Your task to perform on an android device: turn off improve location accuracy Image 0: 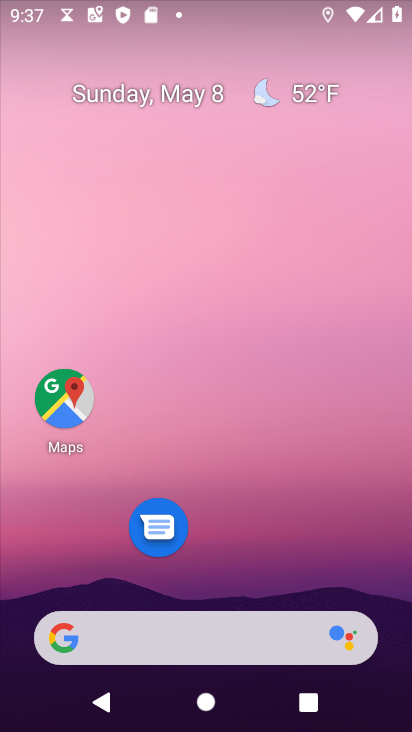
Step 0: drag from (269, 567) to (220, 115)
Your task to perform on an android device: turn off improve location accuracy Image 1: 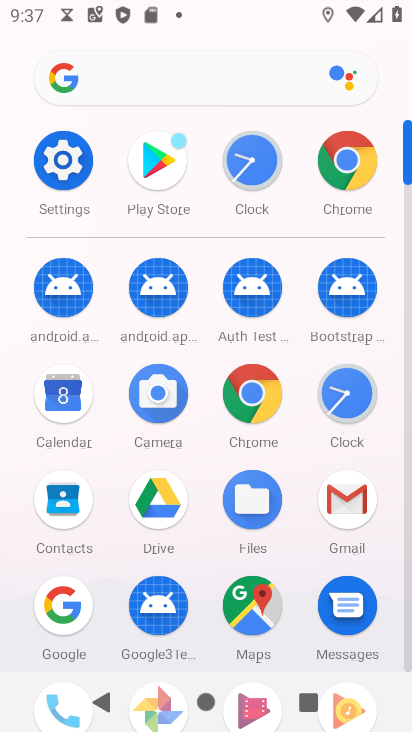
Step 1: drag from (208, 433) to (212, 284)
Your task to perform on an android device: turn off improve location accuracy Image 2: 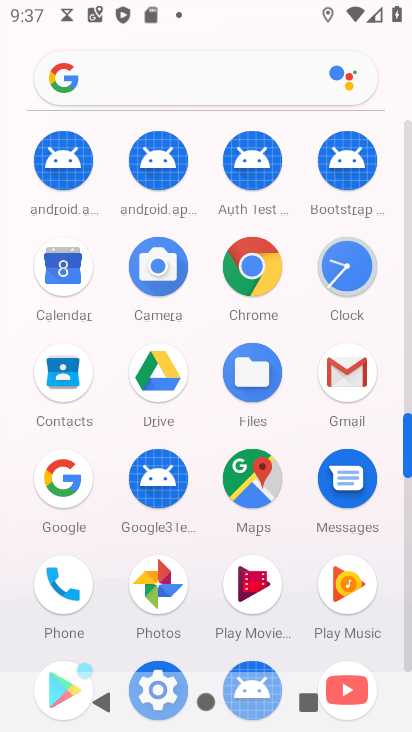
Step 2: drag from (203, 402) to (219, 244)
Your task to perform on an android device: turn off improve location accuracy Image 3: 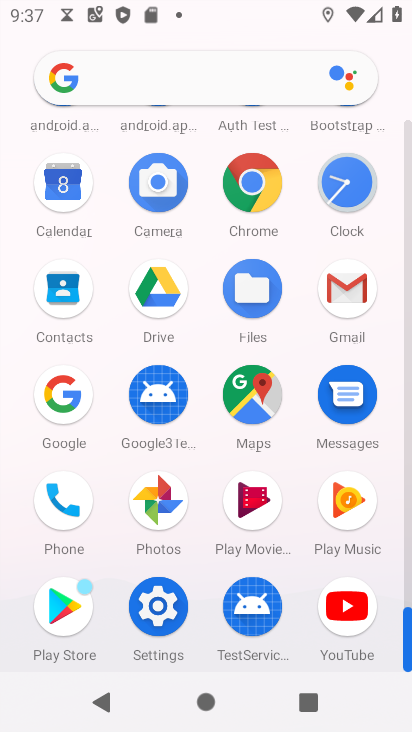
Step 3: click (158, 605)
Your task to perform on an android device: turn off improve location accuracy Image 4: 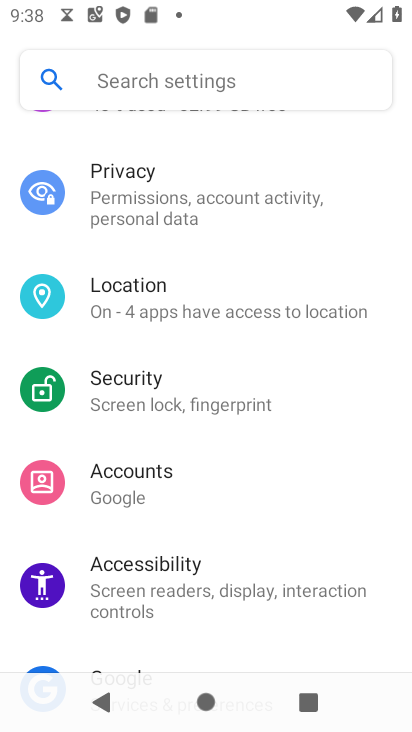
Step 4: click (152, 288)
Your task to perform on an android device: turn off improve location accuracy Image 5: 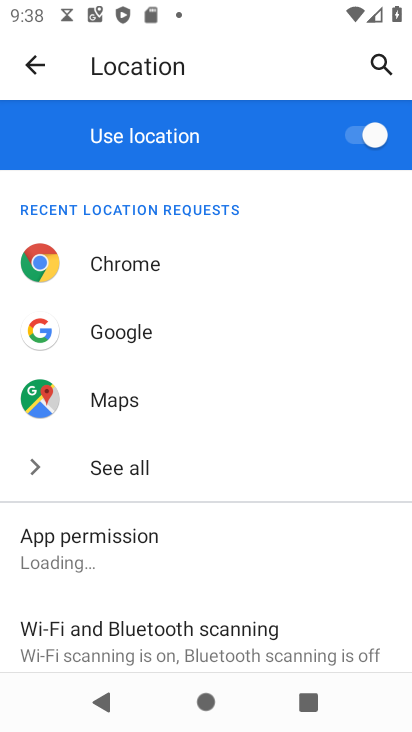
Step 5: drag from (184, 382) to (221, 303)
Your task to perform on an android device: turn off improve location accuracy Image 6: 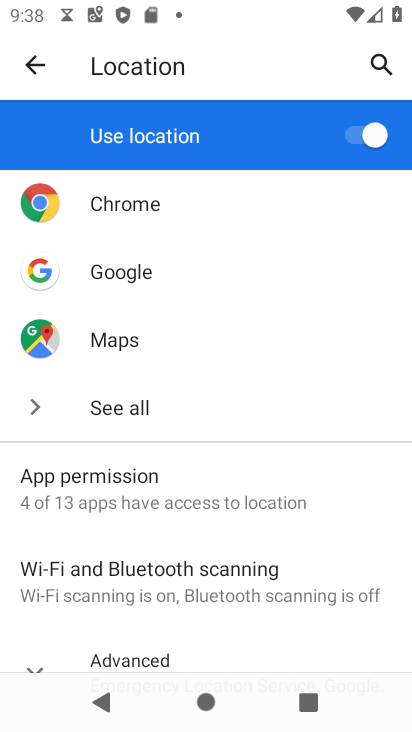
Step 6: drag from (180, 537) to (261, 378)
Your task to perform on an android device: turn off improve location accuracy Image 7: 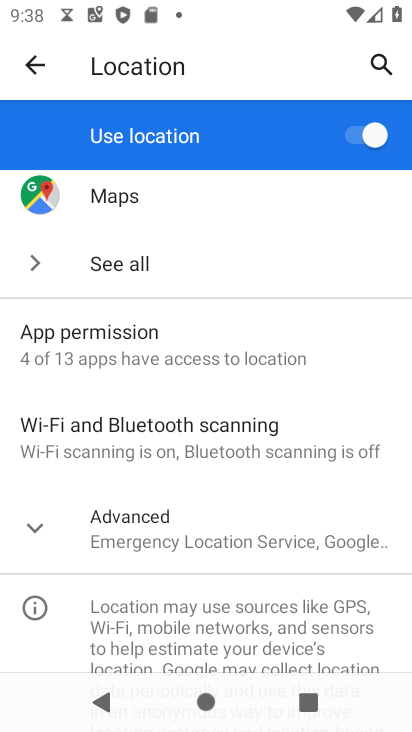
Step 7: click (136, 513)
Your task to perform on an android device: turn off improve location accuracy Image 8: 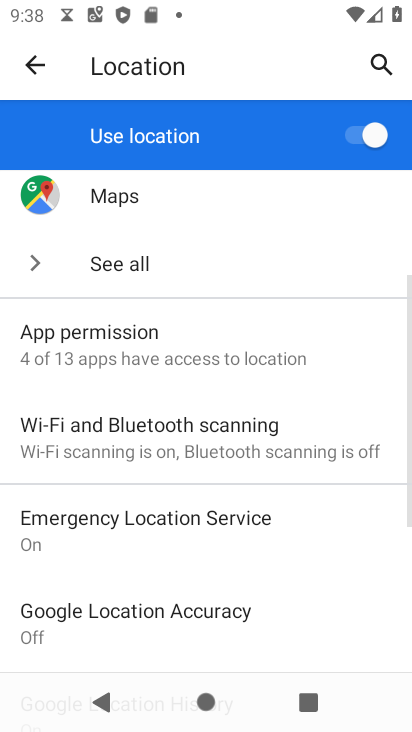
Step 8: drag from (113, 598) to (203, 460)
Your task to perform on an android device: turn off improve location accuracy Image 9: 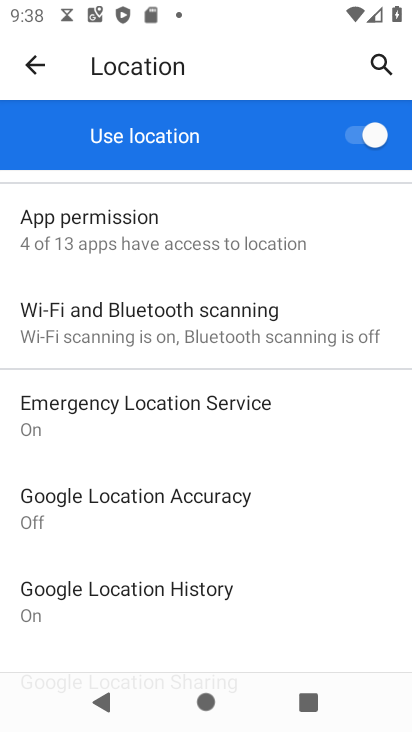
Step 9: click (179, 497)
Your task to perform on an android device: turn off improve location accuracy Image 10: 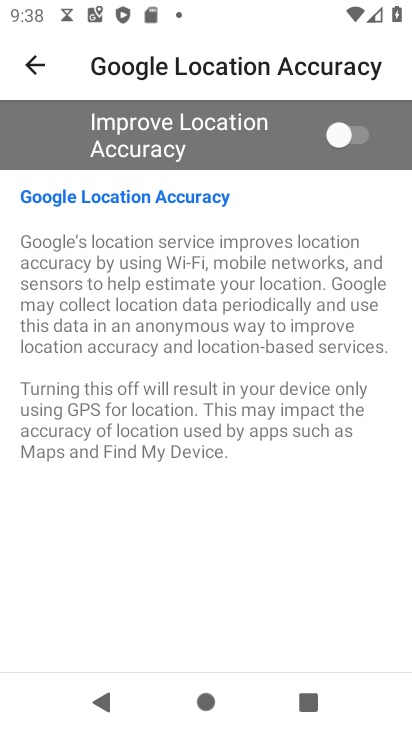
Step 10: task complete